Your task to perform on an android device: Go to location settings Image 0: 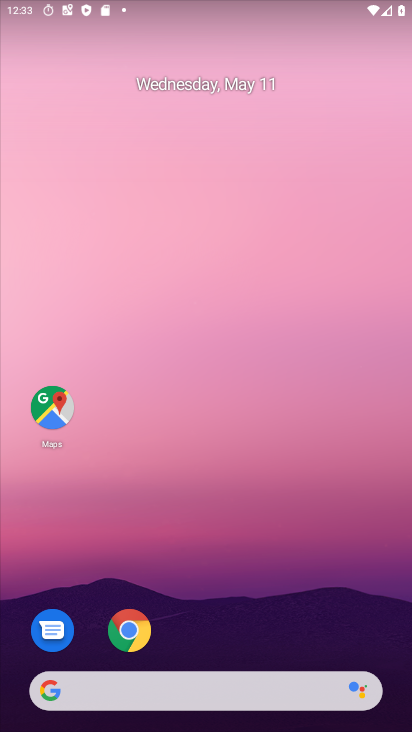
Step 0: drag from (294, 610) to (304, 134)
Your task to perform on an android device: Go to location settings Image 1: 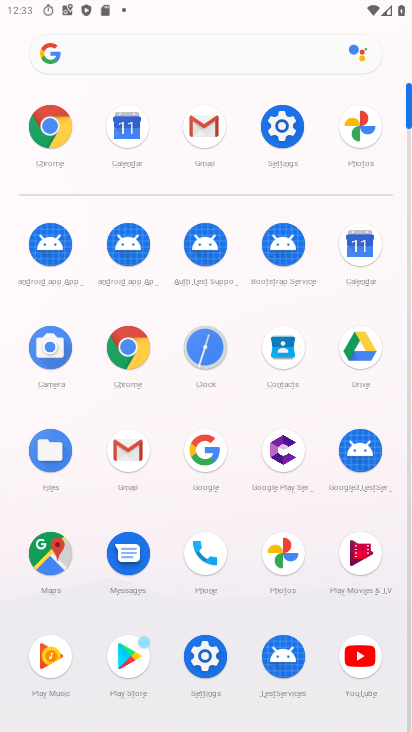
Step 1: click (281, 121)
Your task to perform on an android device: Go to location settings Image 2: 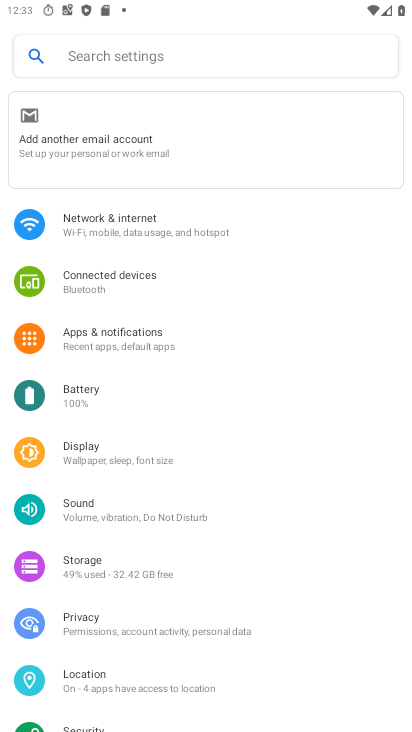
Step 2: drag from (188, 644) to (256, 184)
Your task to perform on an android device: Go to location settings Image 3: 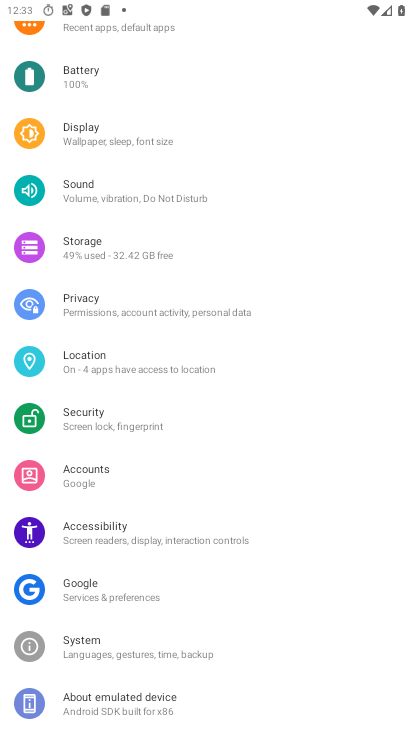
Step 3: click (123, 417)
Your task to perform on an android device: Go to location settings Image 4: 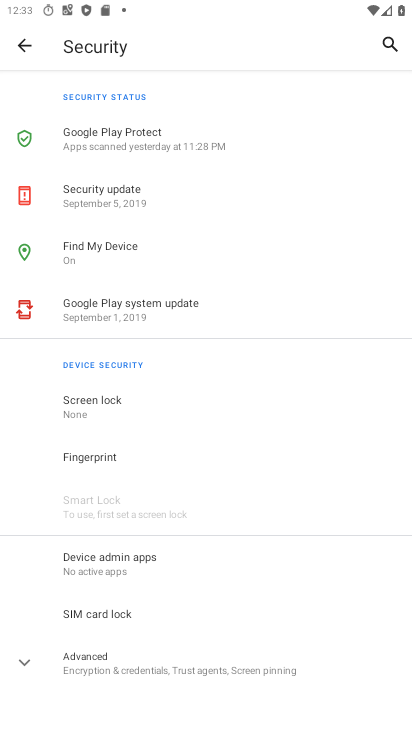
Step 4: click (27, 44)
Your task to perform on an android device: Go to location settings Image 5: 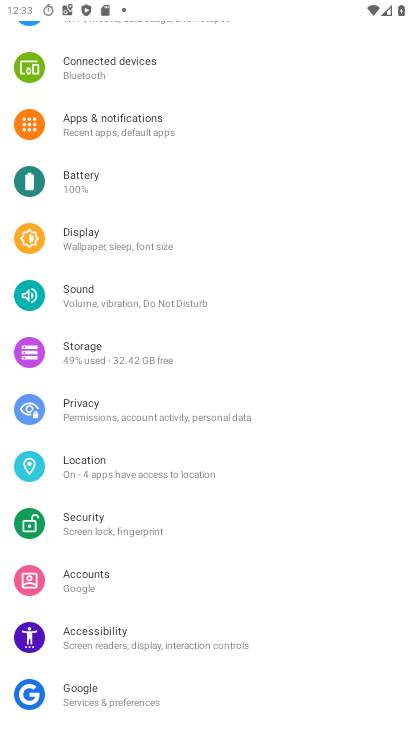
Step 5: click (146, 467)
Your task to perform on an android device: Go to location settings Image 6: 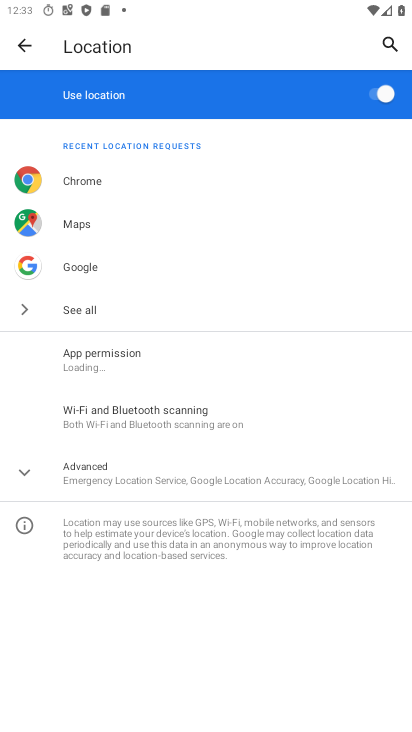
Step 6: task complete